Your task to perform on an android device: set the timer Image 0: 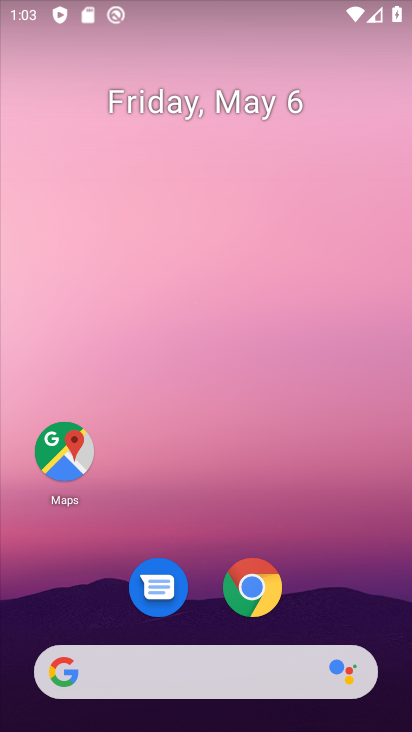
Step 0: drag from (207, 628) to (221, 0)
Your task to perform on an android device: set the timer Image 1: 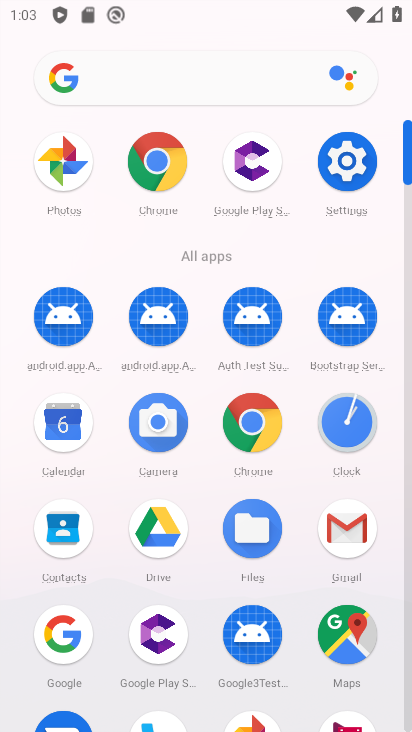
Step 1: click (347, 413)
Your task to perform on an android device: set the timer Image 2: 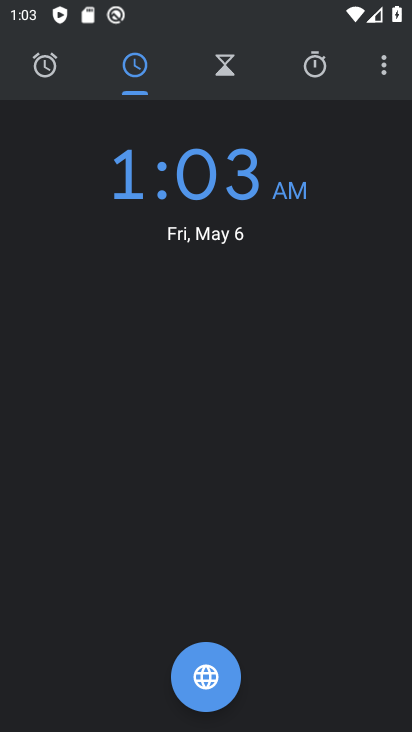
Step 2: click (226, 70)
Your task to perform on an android device: set the timer Image 3: 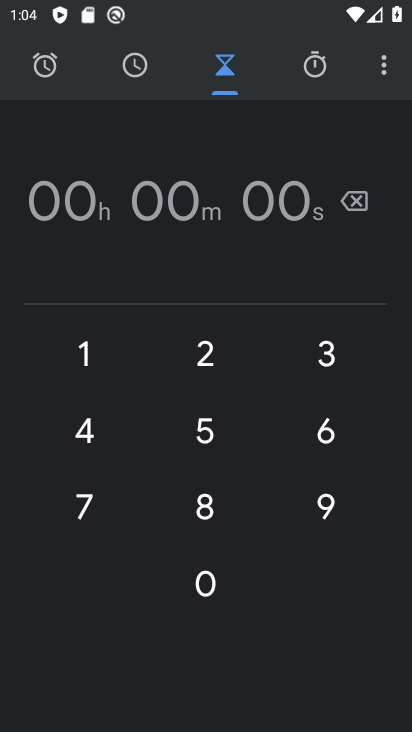
Step 3: click (82, 353)
Your task to perform on an android device: set the timer Image 4: 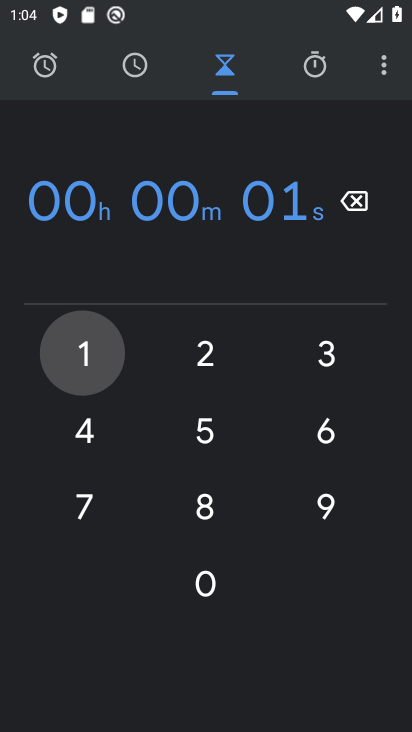
Step 4: click (212, 581)
Your task to perform on an android device: set the timer Image 5: 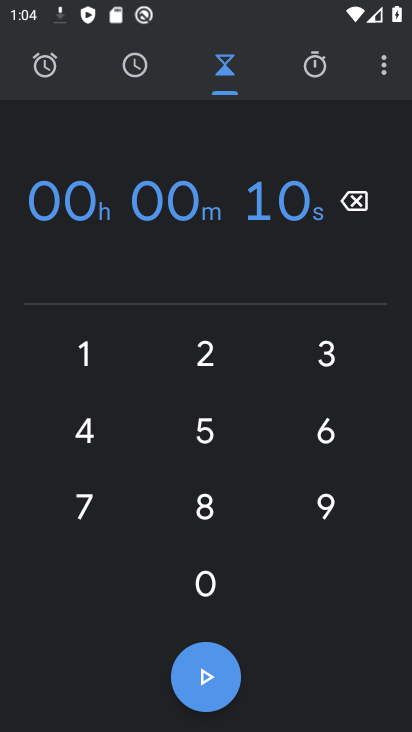
Step 5: click (212, 581)
Your task to perform on an android device: set the timer Image 6: 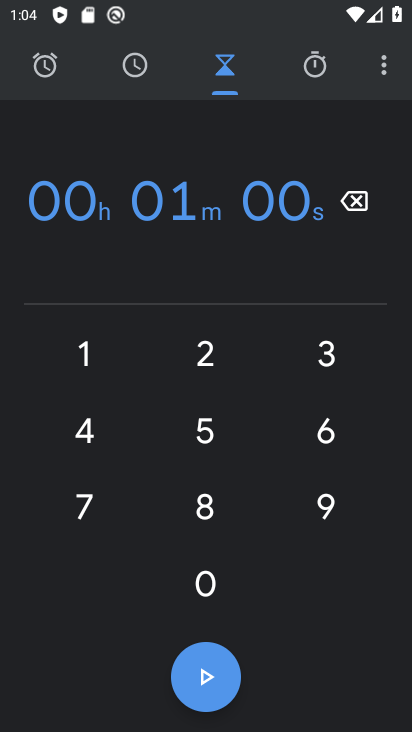
Step 6: click (212, 581)
Your task to perform on an android device: set the timer Image 7: 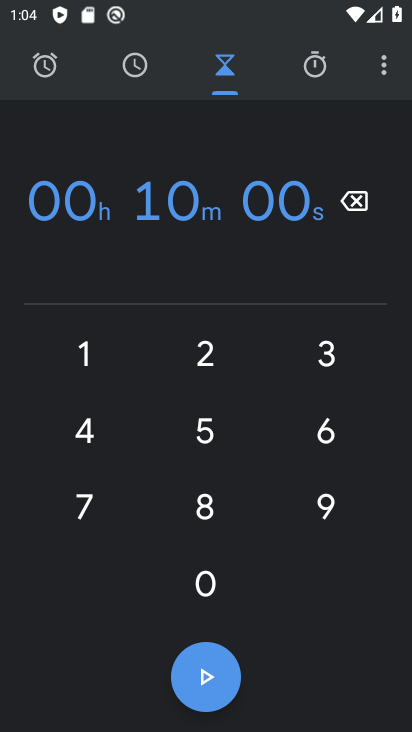
Step 7: click (207, 674)
Your task to perform on an android device: set the timer Image 8: 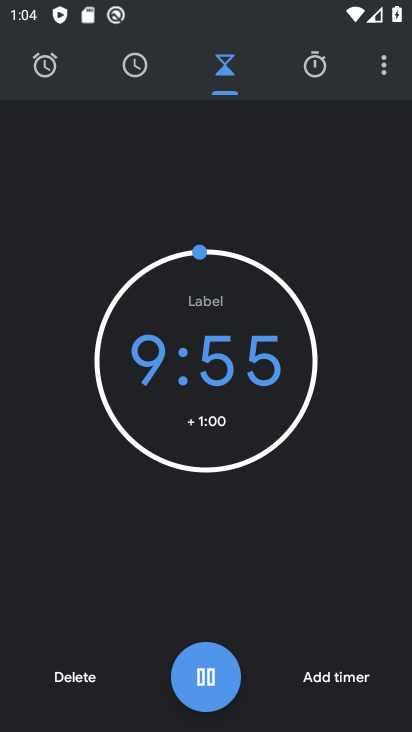
Step 8: click (194, 423)
Your task to perform on an android device: set the timer Image 9: 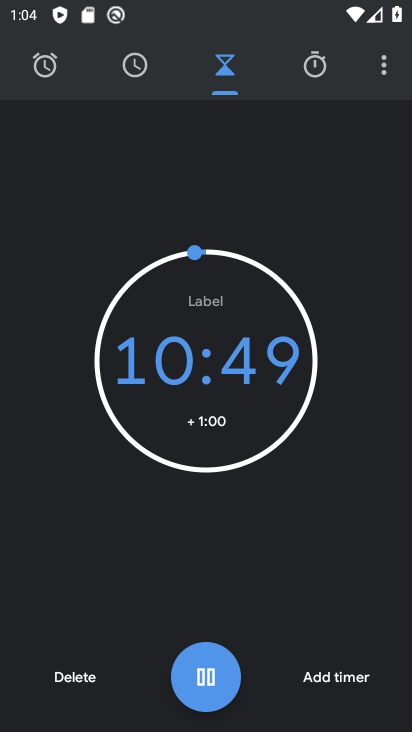
Step 9: task complete